Your task to perform on an android device: toggle notifications settings in the gmail app Image 0: 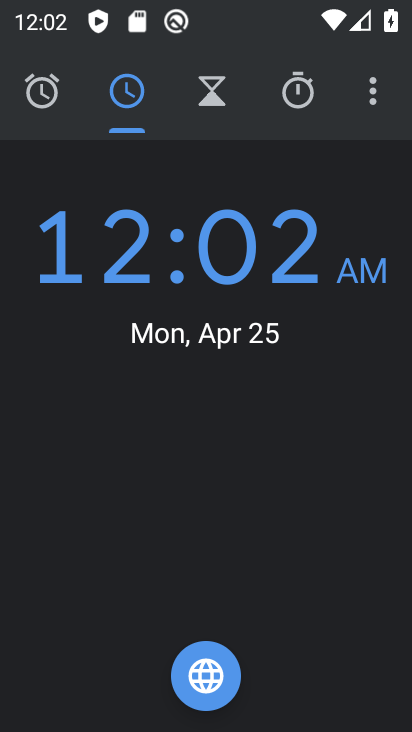
Step 0: press home button
Your task to perform on an android device: toggle notifications settings in the gmail app Image 1: 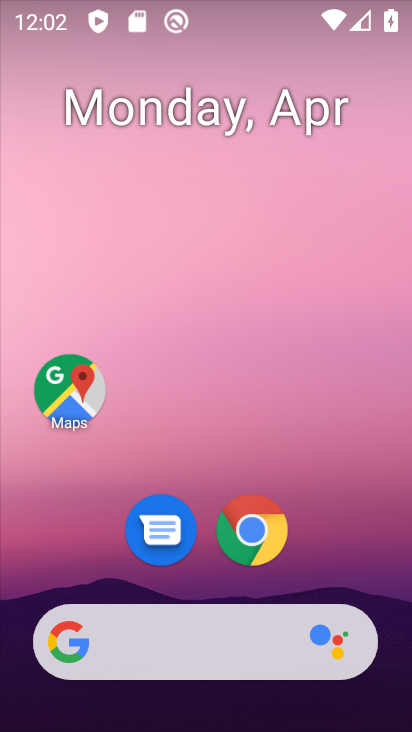
Step 1: drag from (60, 447) to (8, 236)
Your task to perform on an android device: toggle notifications settings in the gmail app Image 2: 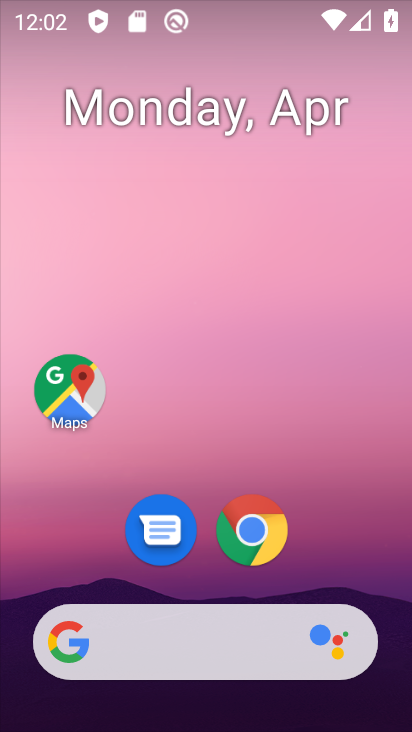
Step 2: drag from (173, 575) to (98, 225)
Your task to perform on an android device: toggle notifications settings in the gmail app Image 3: 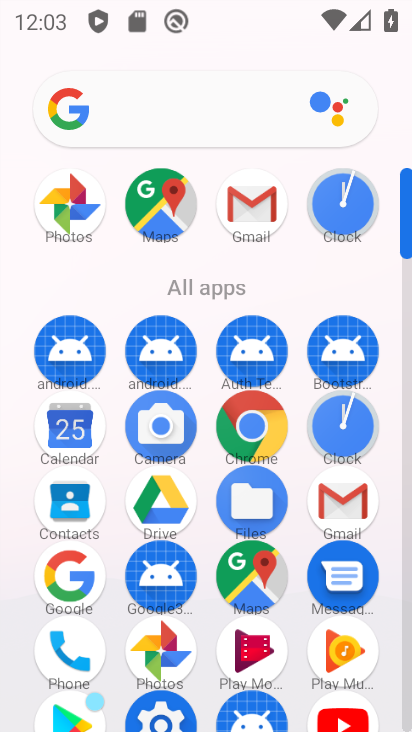
Step 3: click (230, 223)
Your task to perform on an android device: toggle notifications settings in the gmail app Image 4: 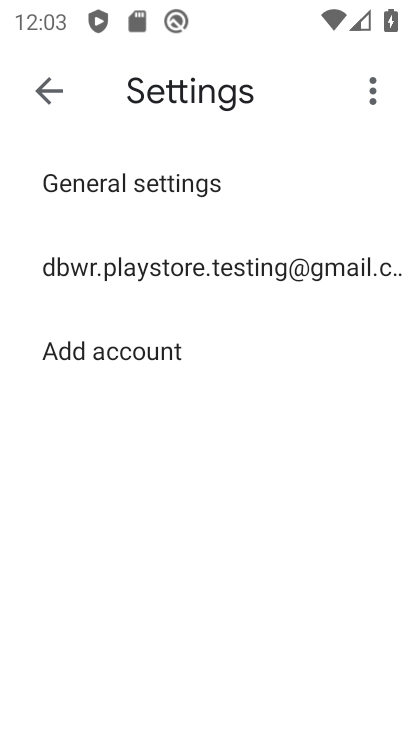
Step 4: click (272, 262)
Your task to perform on an android device: toggle notifications settings in the gmail app Image 5: 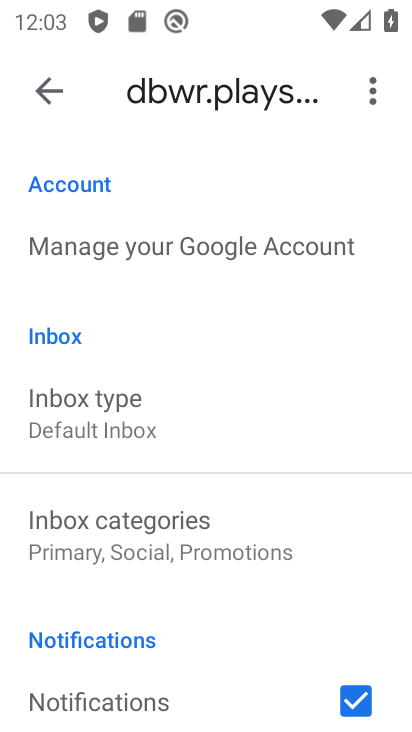
Step 5: drag from (180, 654) to (235, 310)
Your task to perform on an android device: toggle notifications settings in the gmail app Image 6: 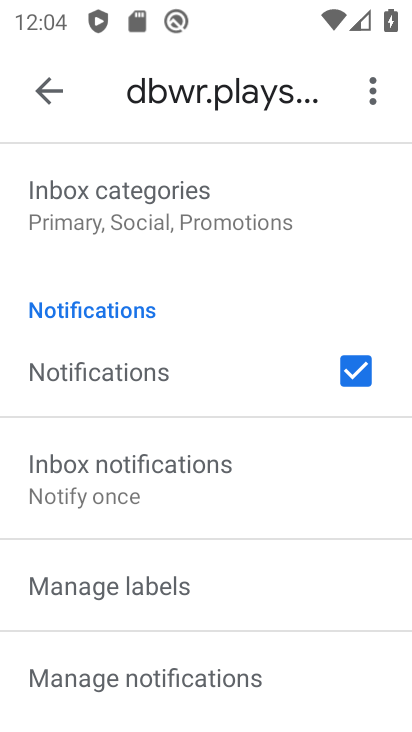
Step 6: click (74, 701)
Your task to perform on an android device: toggle notifications settings in the gmail app Image 7: 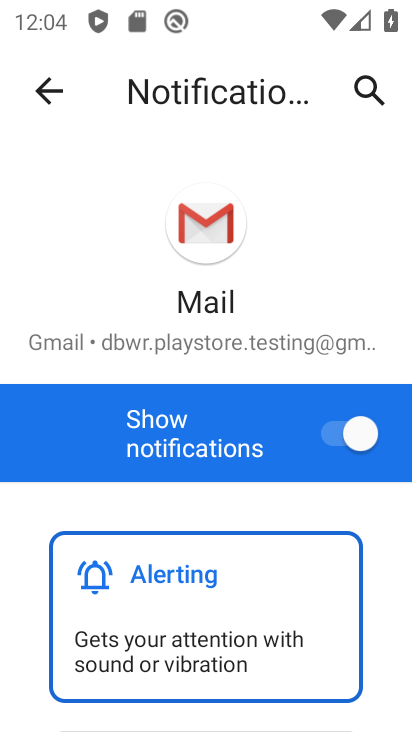
Step 7: click (340, 434)
Your task to perform on an android device: toggle notifications settings in the gmail app Image 8: 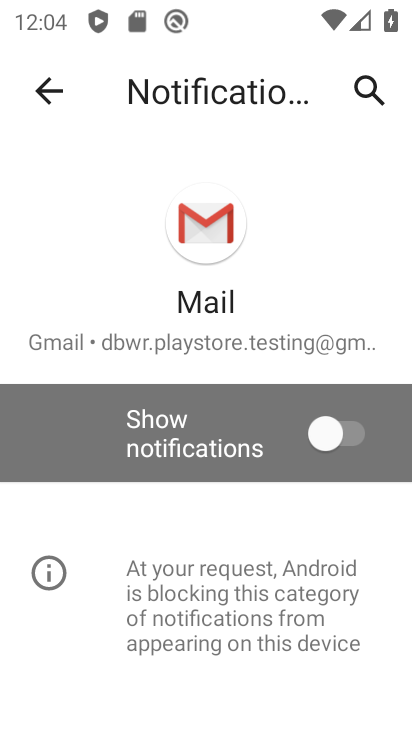
Step 8: task complete